Your task to perform on an android device: Go to calendar. Show me events next week Image 0: 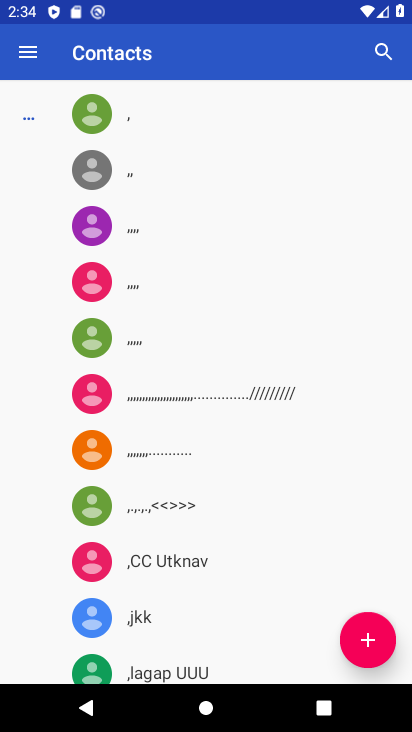
Step 0: press back button
Your task to perform on an android device: Go to calendar. Show me events next week Image 1: 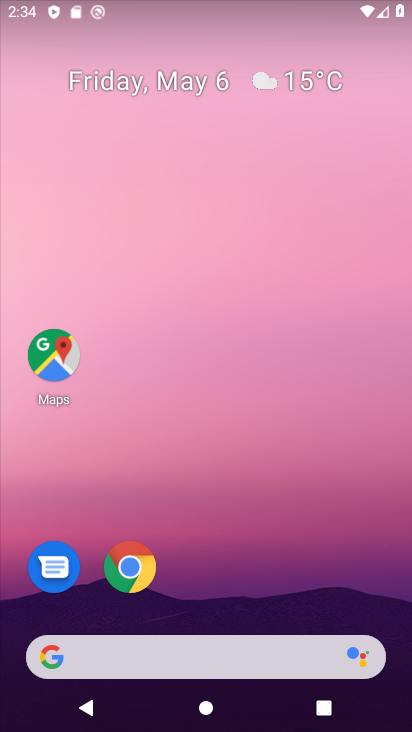
Step 1: drag from (170, 612) to (275, 91)
Your task to perform on an android device: Go to calendar. Show me events next week Image 2: 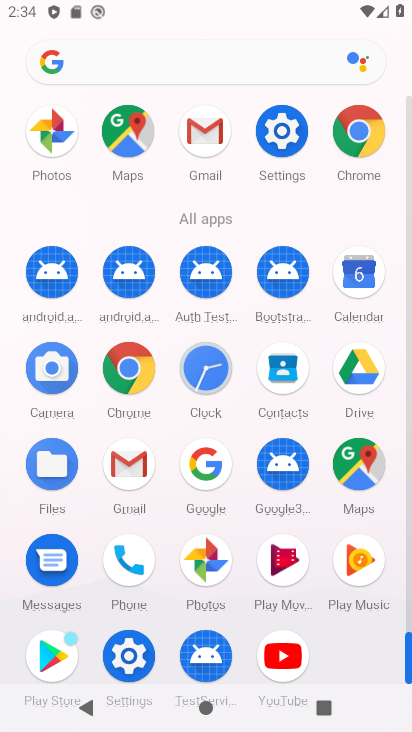
Step 2: click (367, 294)
Your task to perform on an android device: Go to calendar. Show me events next week Image 3: 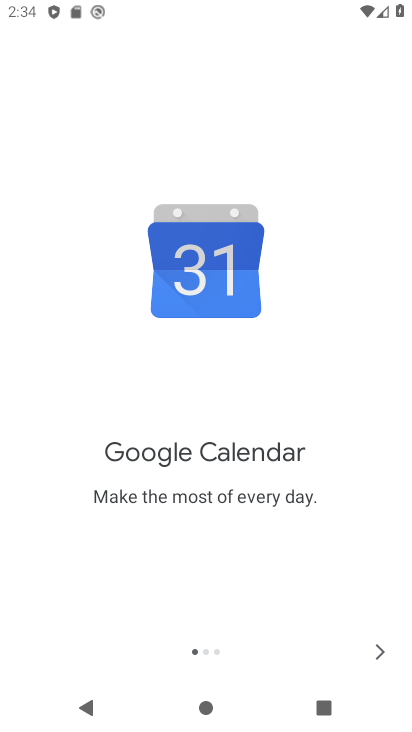
Step 3: click (381, 651)
Your task to perform on an android device: Go to calendar. Show me events next week Image 4: 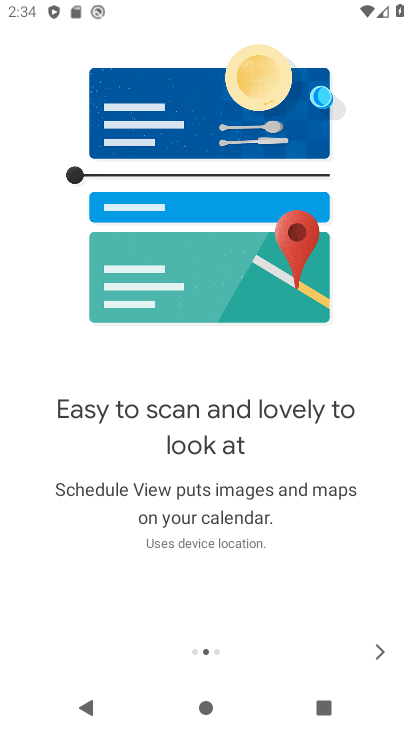
Step 4: click (381, 651)
Your task to perform on an android device: Go to calendar. Show me events next week Image 5: 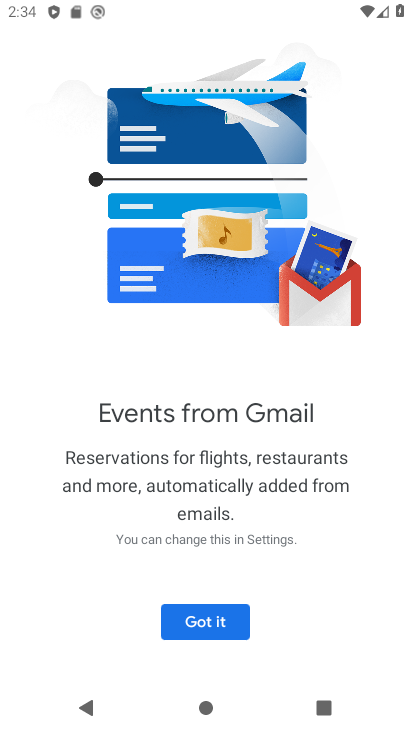
Step 5: click (199, 620)
Your task to perform on an android device: Go to calendar. Show me events next week Image 6: 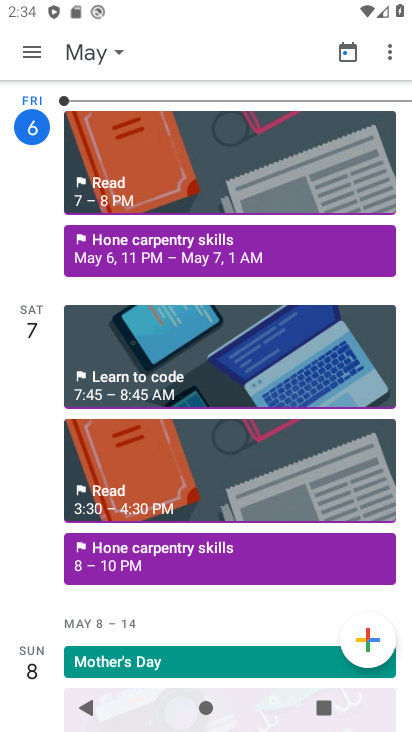
Step 6: click (27, 46)
Your task to perform on an android device: Go to calendar. Show me events next week Image 7: 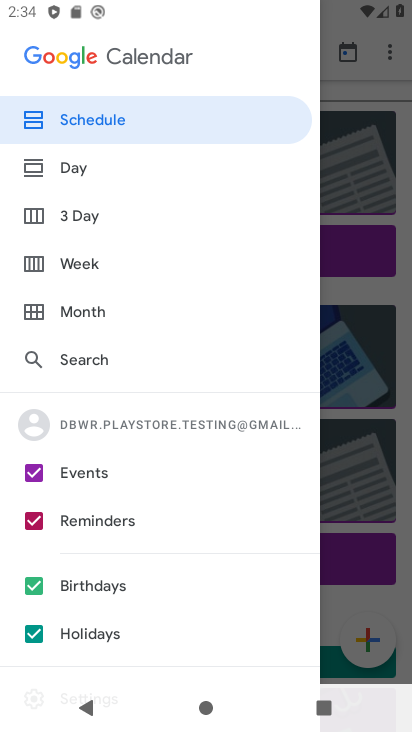
Step 7: click (97, 268)
Your task to perform on an android device: Go to calendar. Show me events next week Image 8: 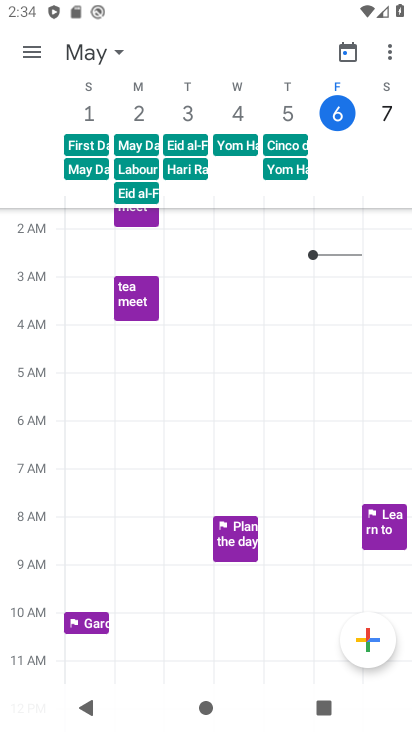
Step 8: task complete